Your task to perform on an android device: turn pop-ups on in chrome Image 0: 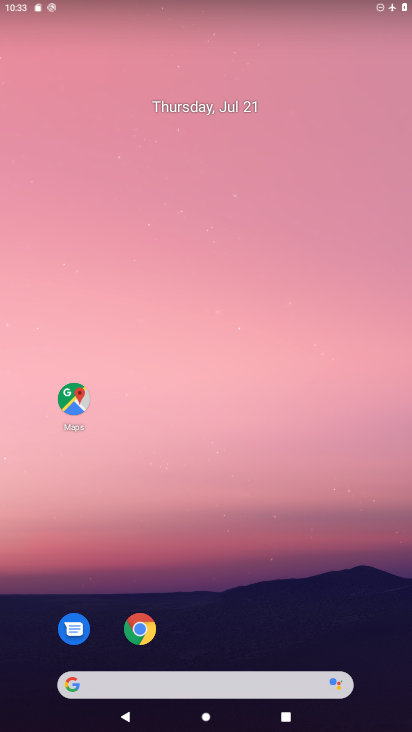
Step 0: click (139, 626)
Your task to perform on an android device: turn pop-ups on in chrome Image 1: 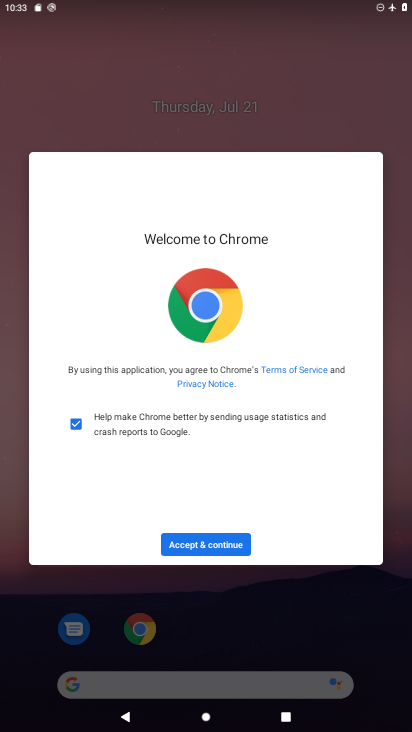
Step 1: click (221, 547)
Your task to perform on an android device: turn pop-ups on in chrome Image 2: 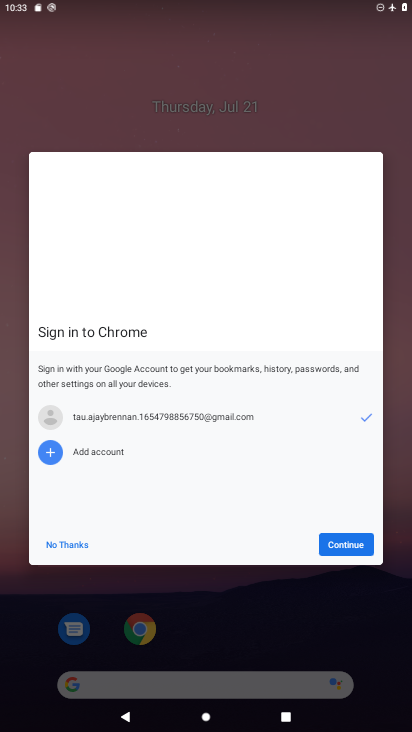
Step 2: click (343, 544)
Your task to perform on an android device: turn pop-ups on in chrome Image 3: 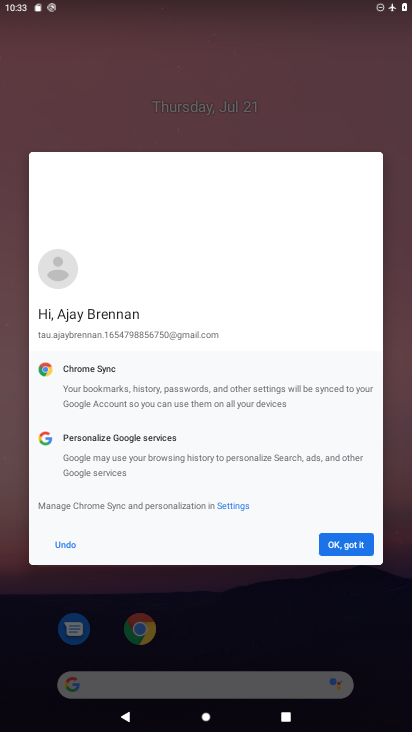
Step 3: click (343, 544)
Your task to perform on an android device: turn pop-ups on in chrome Image 4: 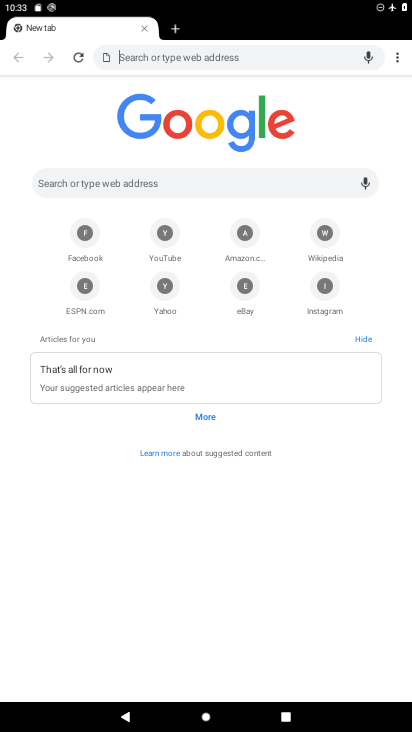
Step 4: click (393, 58)
Your task to perform on an android device: turn pop-ups on in chrome Image 5: 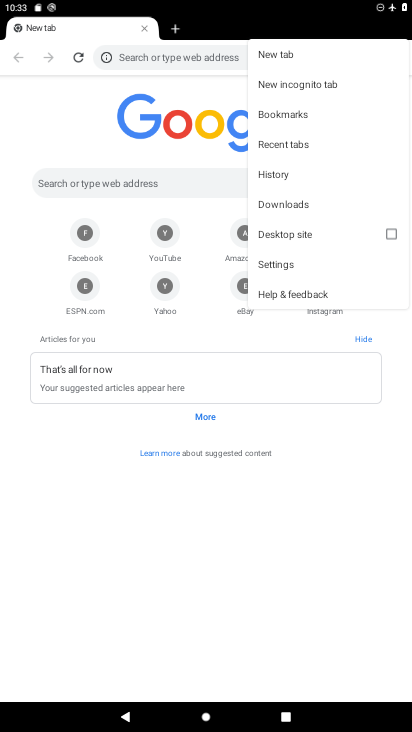
Step 5: click (270, 260)
Your task to perform on an android device: turn pop-ups on in chrome Image 6: 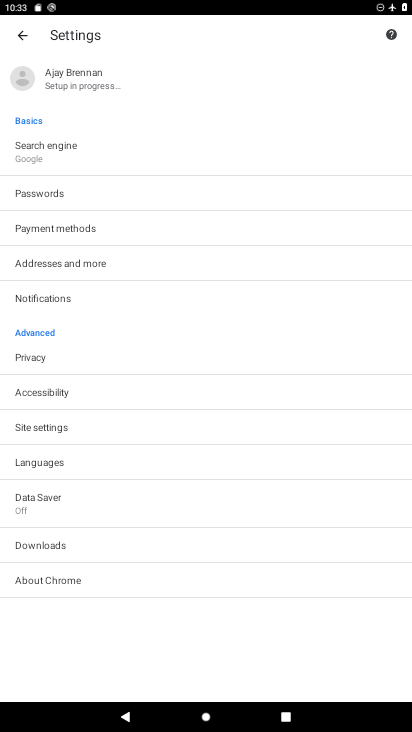
Step 6: click (82, 424)
Your task to perform on an android device: turn pop-ups on in chrome Image 7: 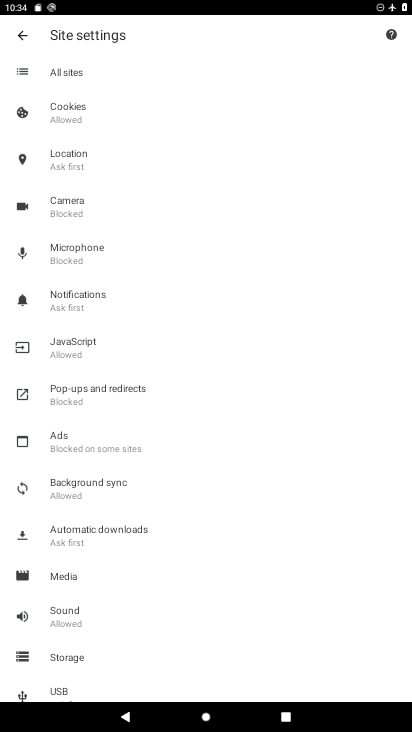
Step 7: click (94, 407)
Your task to perform on an android device: turn pop-ups on in chrome Image 8: 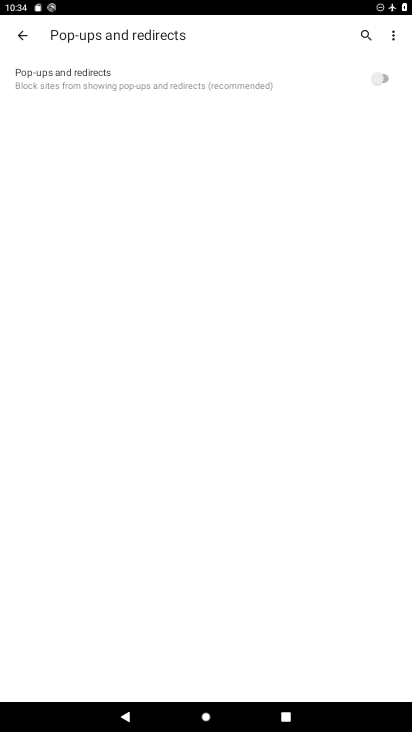
Step 8: click (378, 80)
Your task to perform on an android device: turn pop-ups on in chrome Image 9: 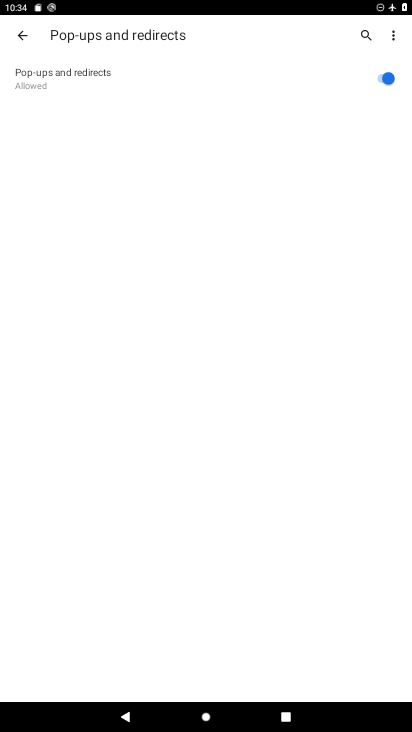
Step 9: task complete